Your task to perform on an android device: turn on wifi Image 0: 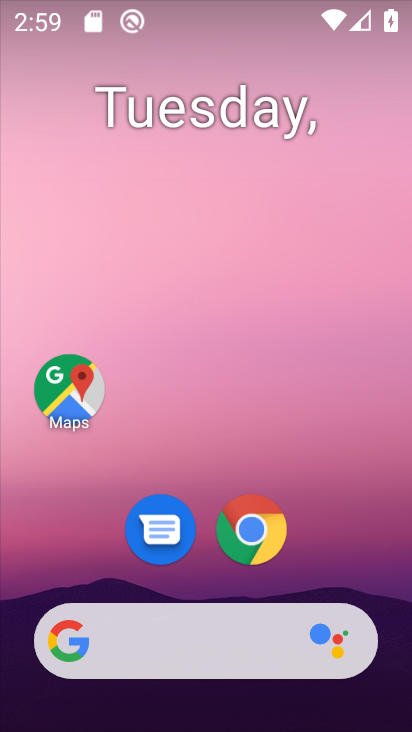
Step 0: drag from (204, 17) to (181, 405)
Your task to perform on an android device: turn on wifi Image 1: 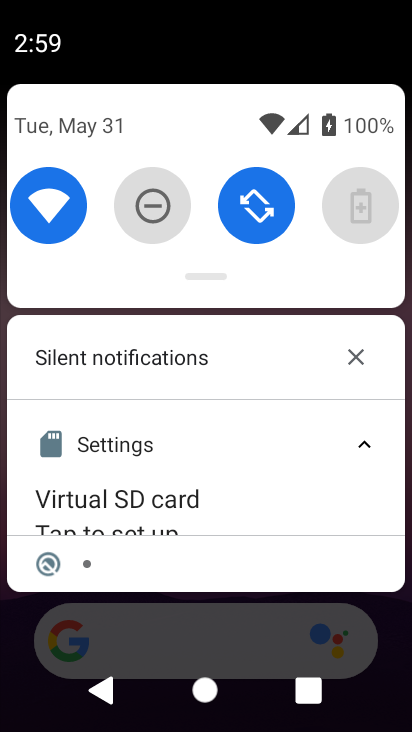
Step 1: click (62, 217)
Your task to perform on an android device: turn on wifi Image 2: 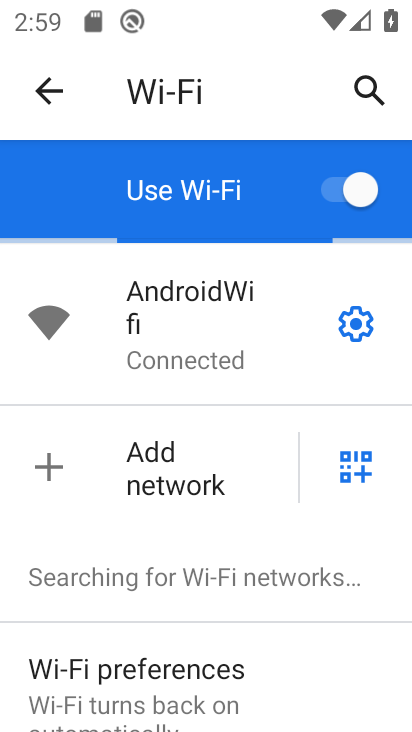
Step 2: task complete